Your task to perform on an android device: turn on location history Image 0: 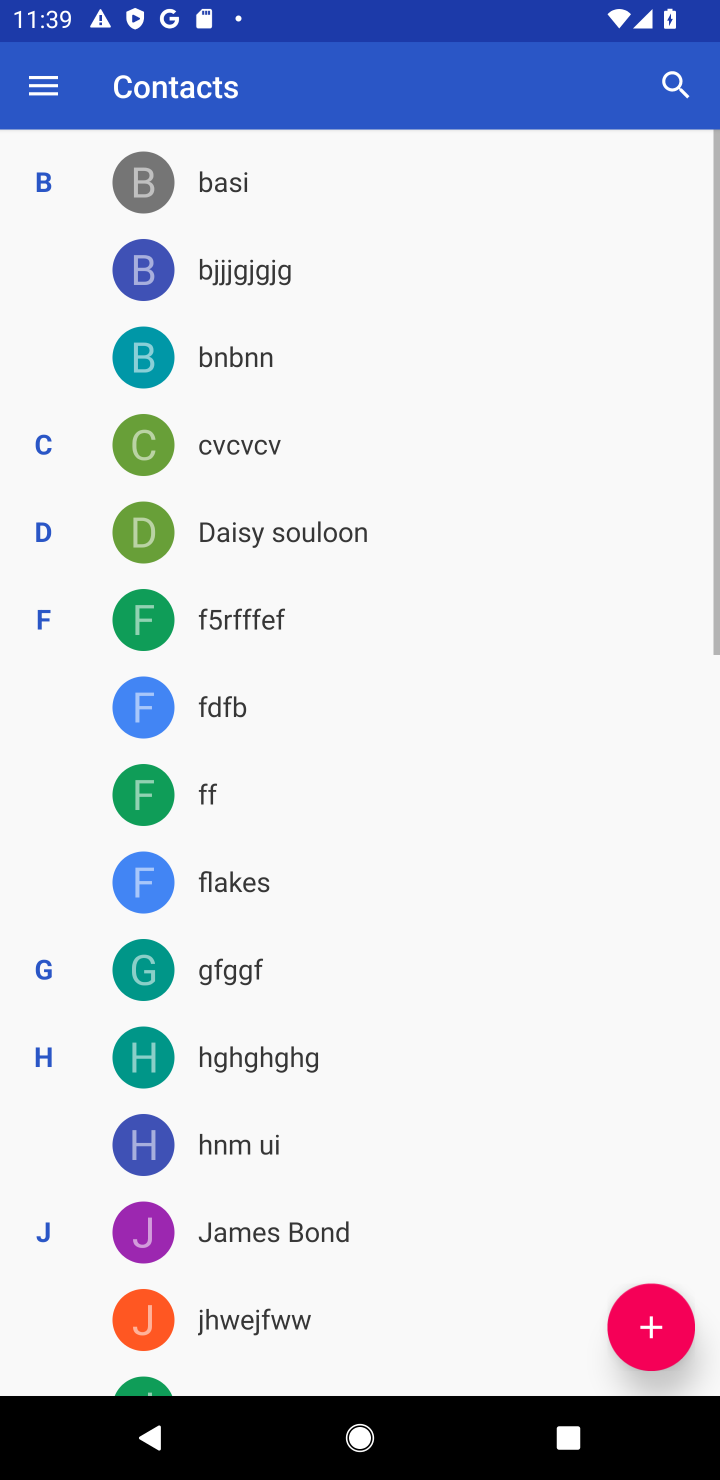
Step 0: click (441, 993)
Your task to perform on an android device: turn on location history Image 1: 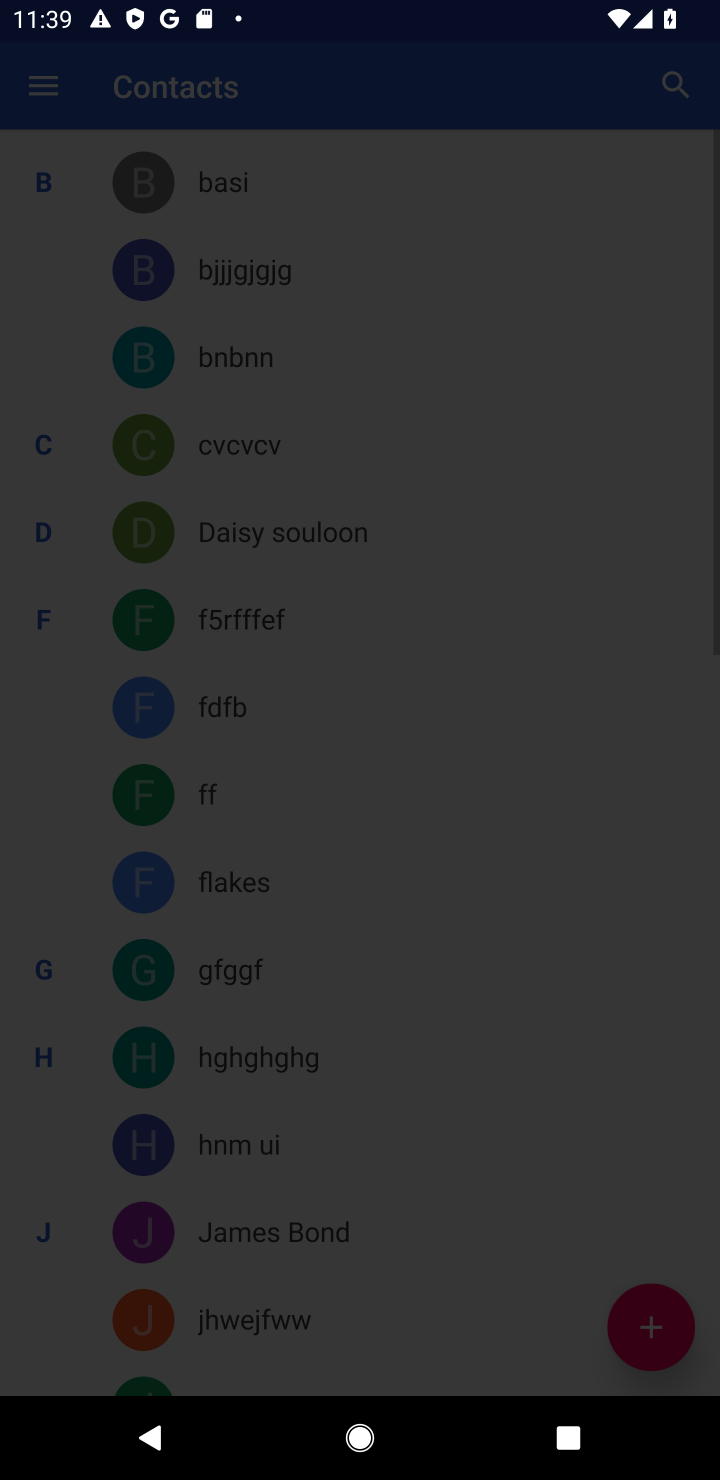
Step 1: press home button
Your task to perform on an android device: turn on location history Image 2: 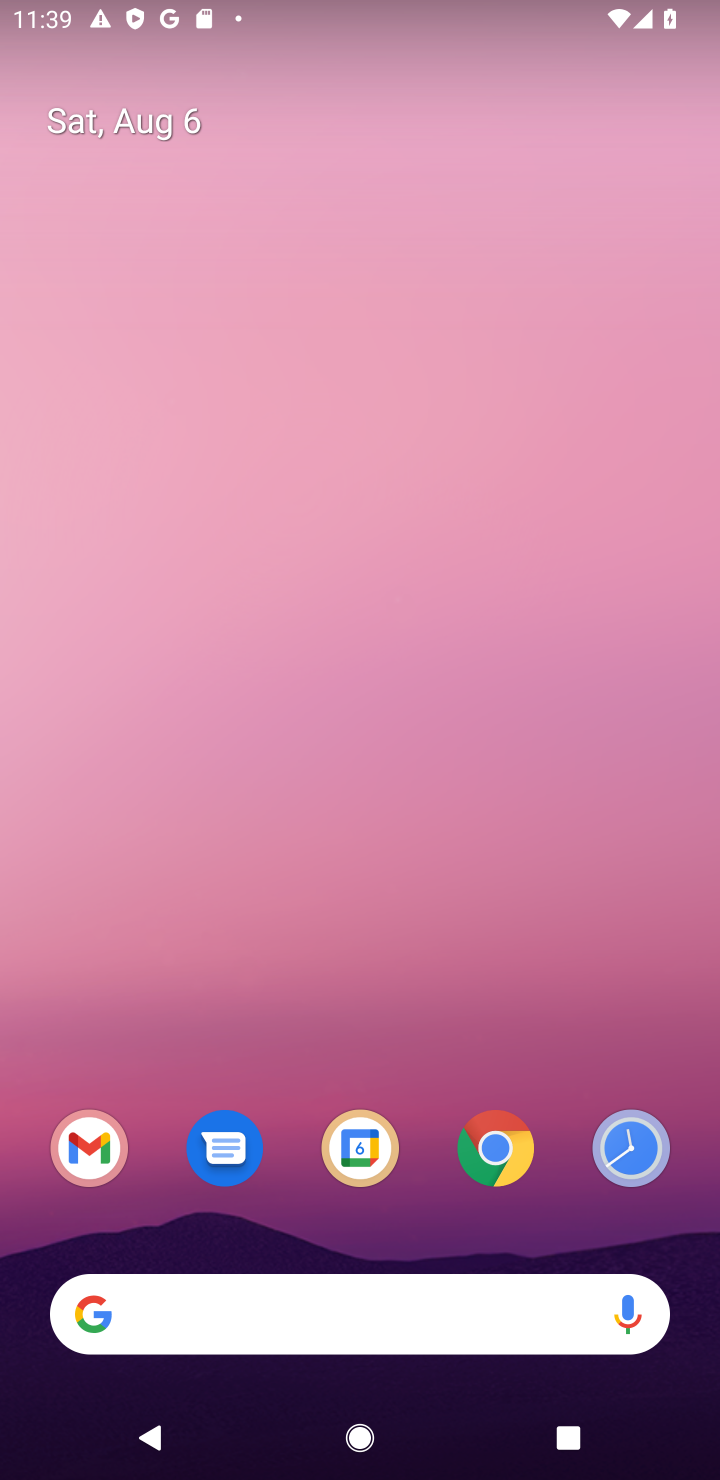
Step 2: drag from (323, 561) to (326, 158)
Your task to perform on an android device: turn on location history Image 3: 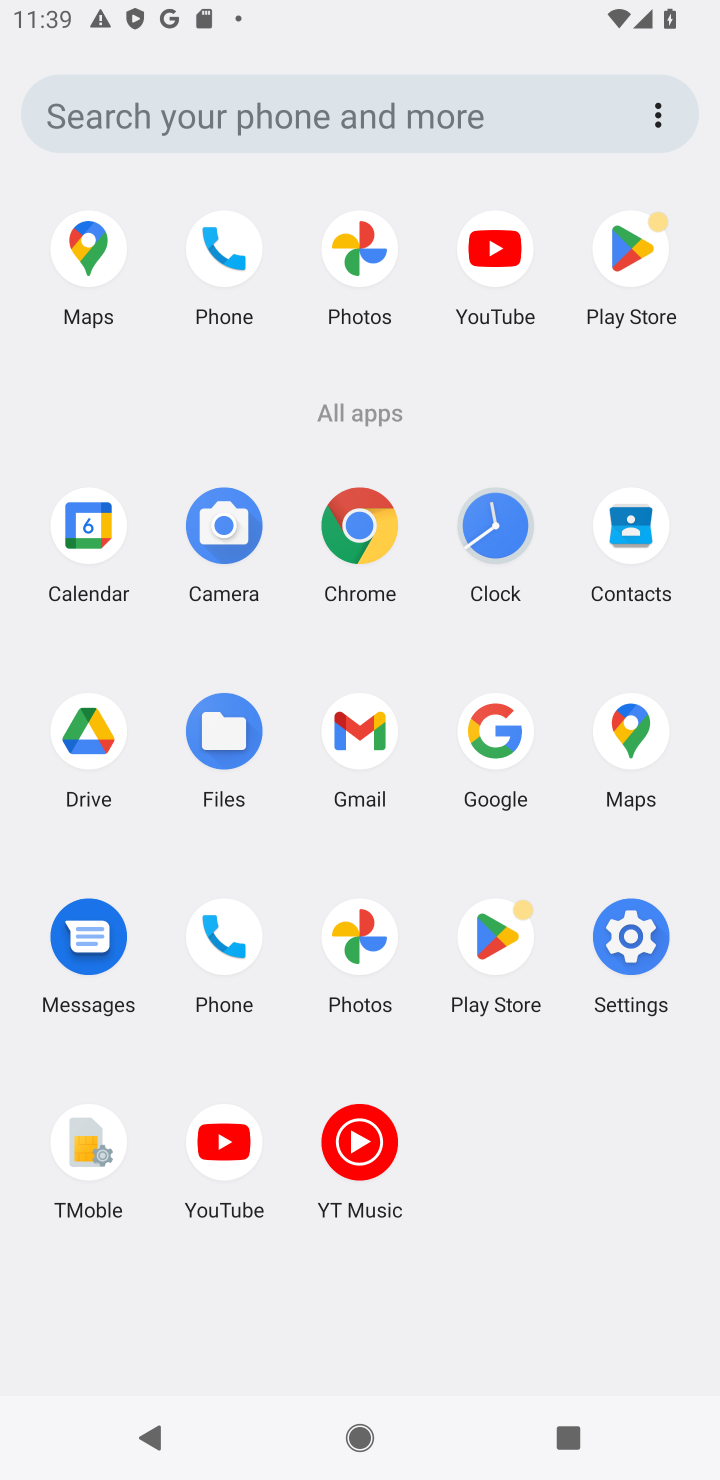
Step 3: click (632, 933)
Your task to perform on an android device: turn on location history Image 4: 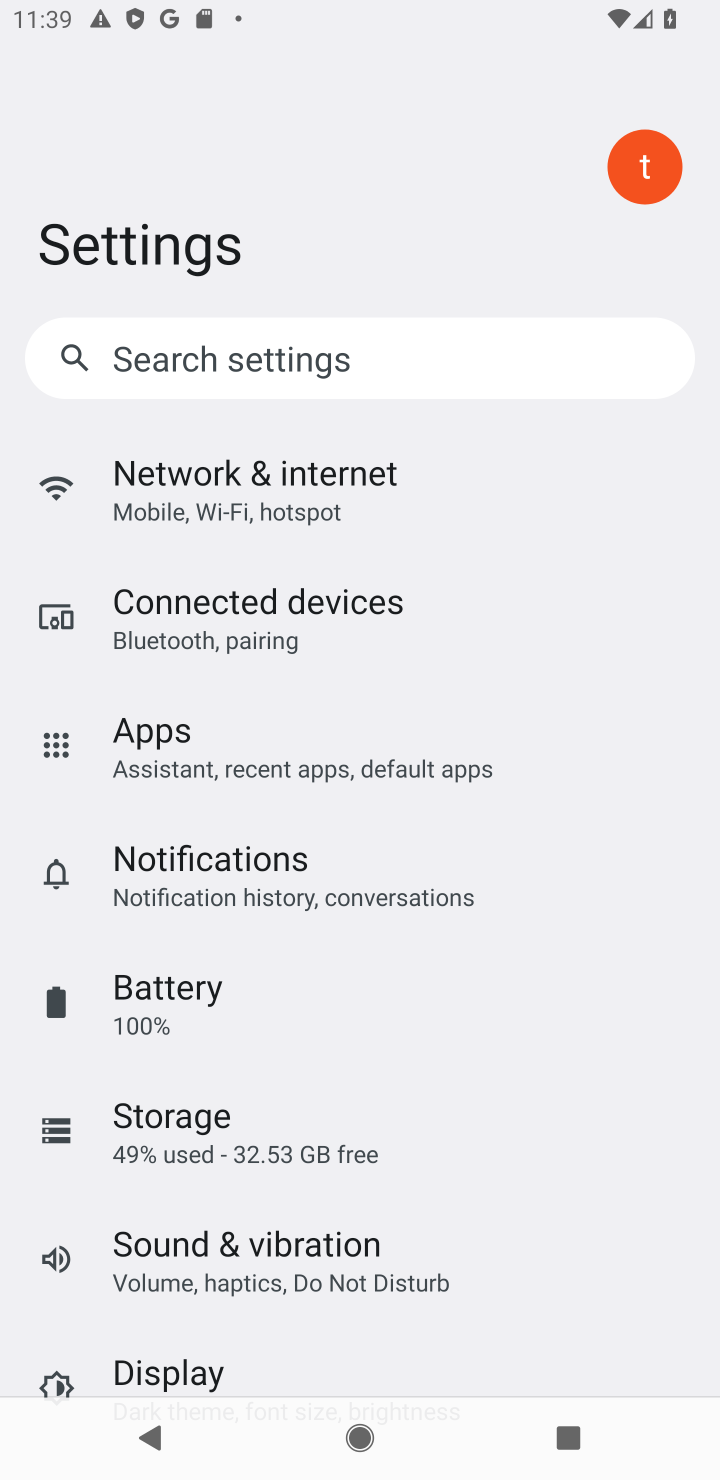
Step 4: drag from (428, 1293) to (433, 394)
Your task to perform on an android device: turn on location history Image 5: 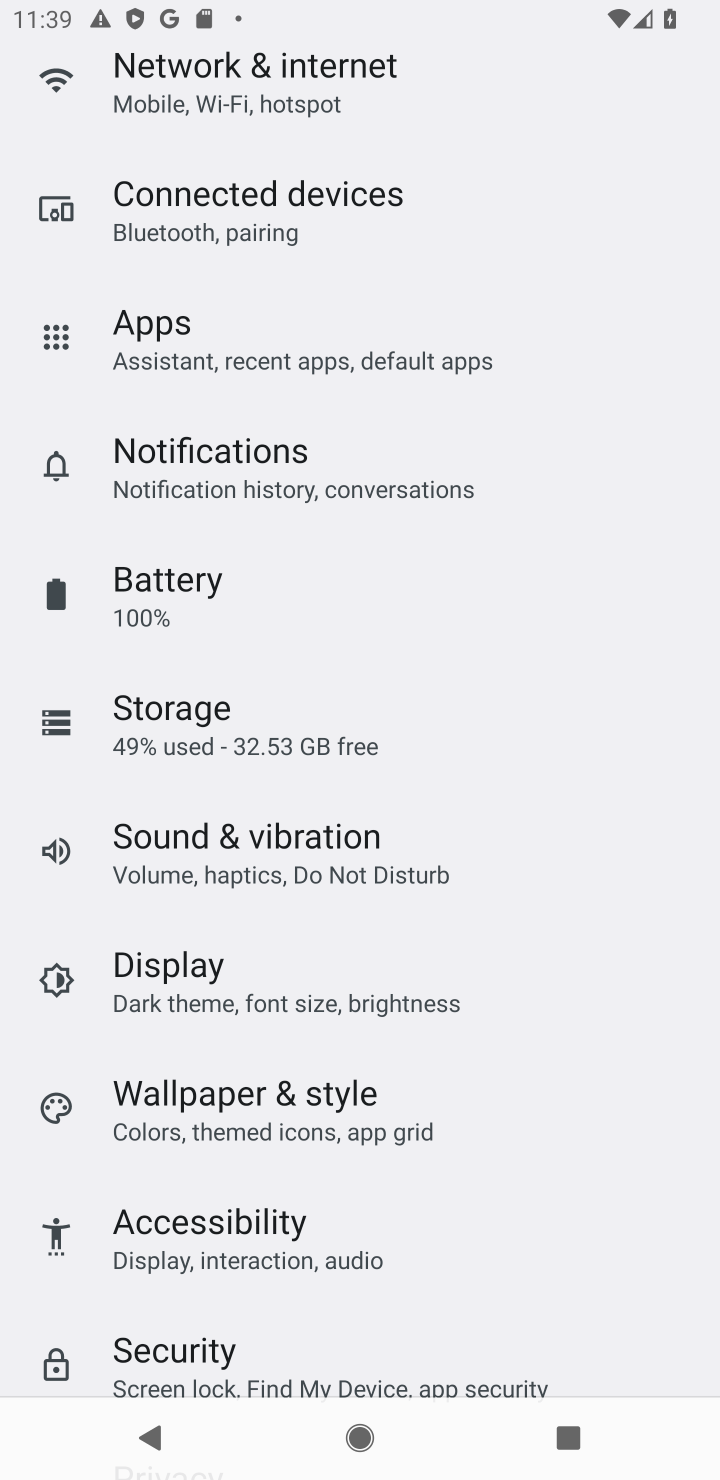
Step 5: drag from (454, 1226) to (354, 584)
Your task to perform on an android device: turn on location history Image 6: 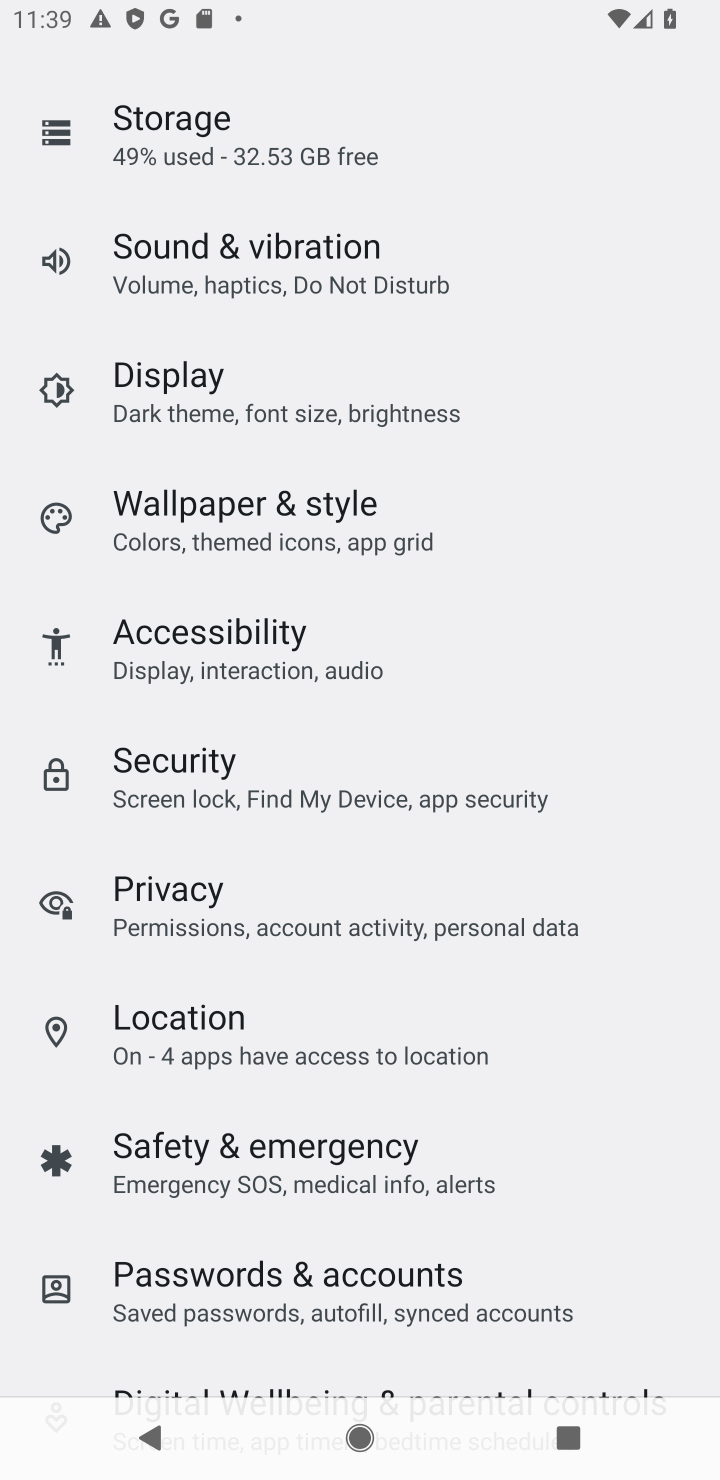
Step 6: click (188, 1021)
Your task to perform on an android device: turn on location history Image 7: 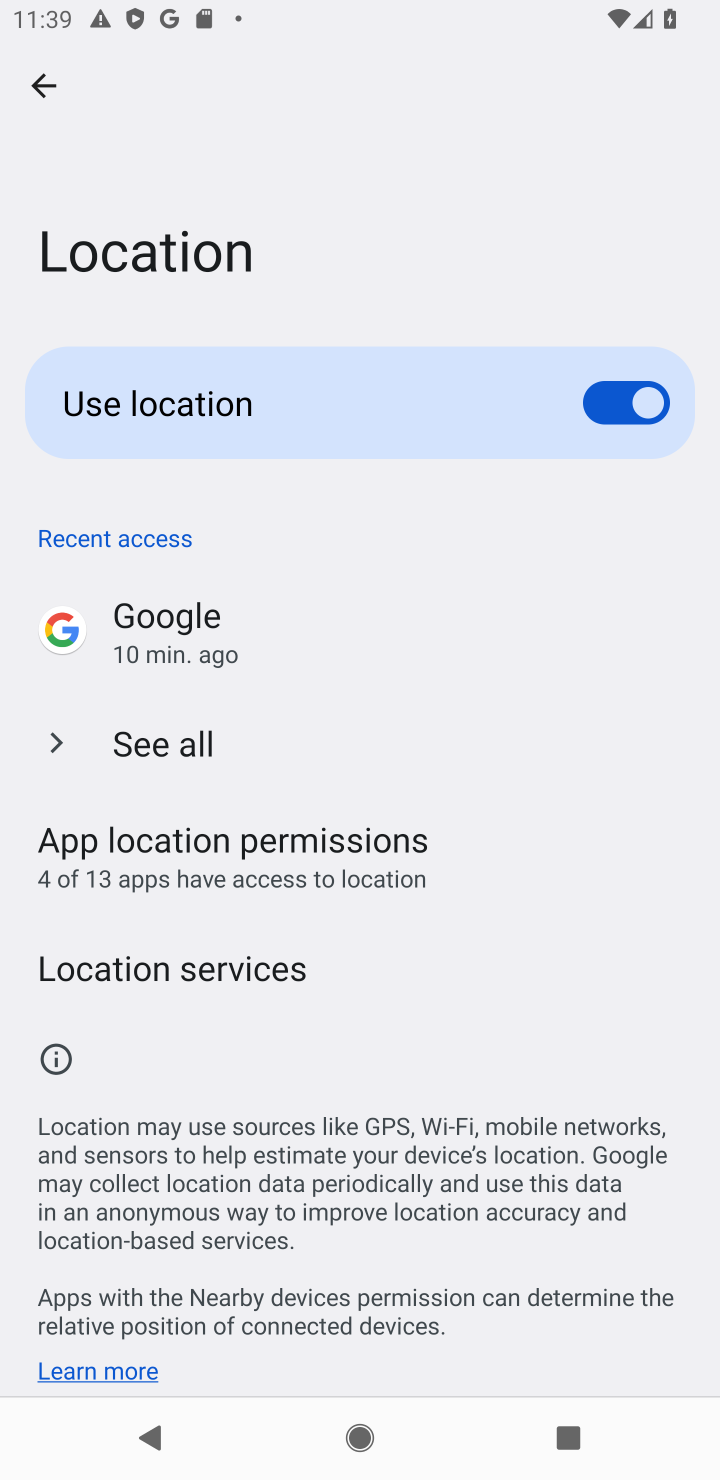
Step 7: click (209, 964)
Your task to perform on an android device: turn on location history Image 8: 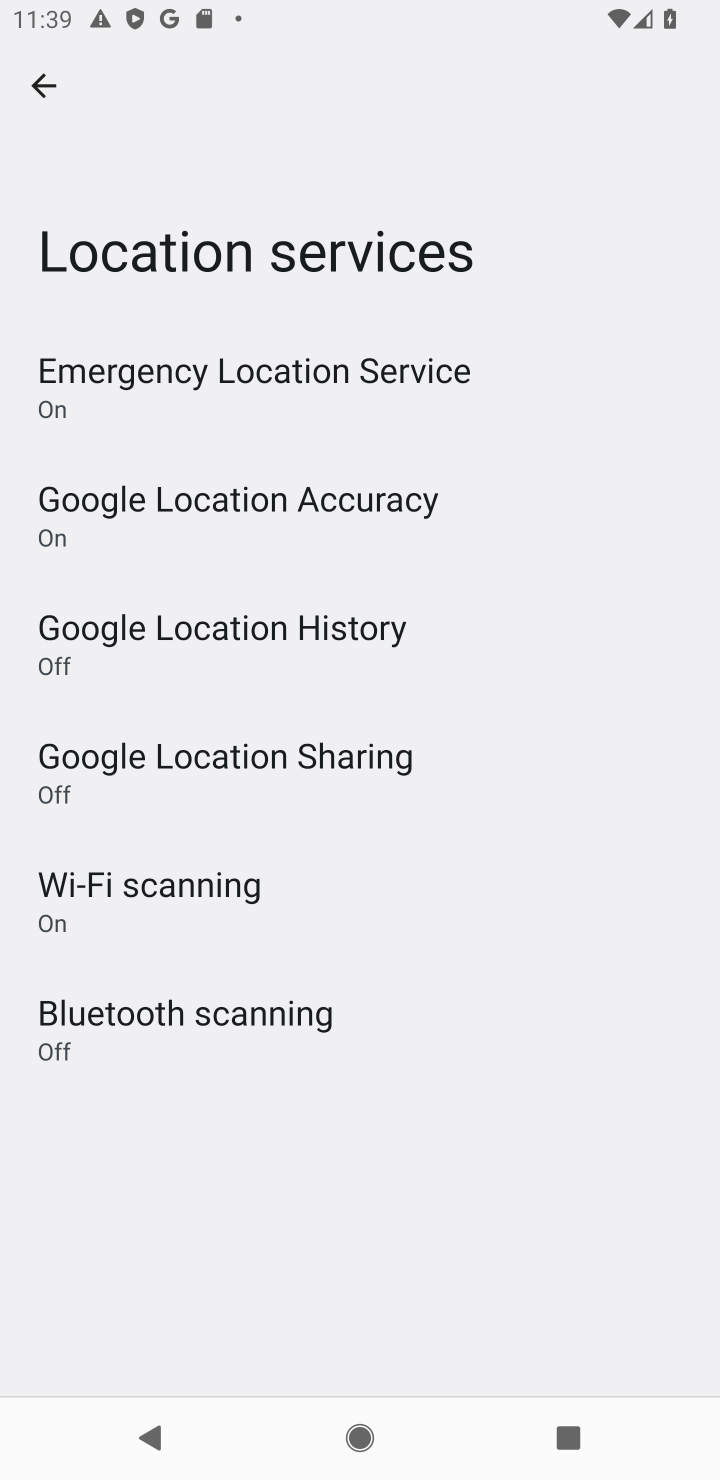
Step 8: click (180, 633)
Your task to perform on an android device: turn on location history Image 9: 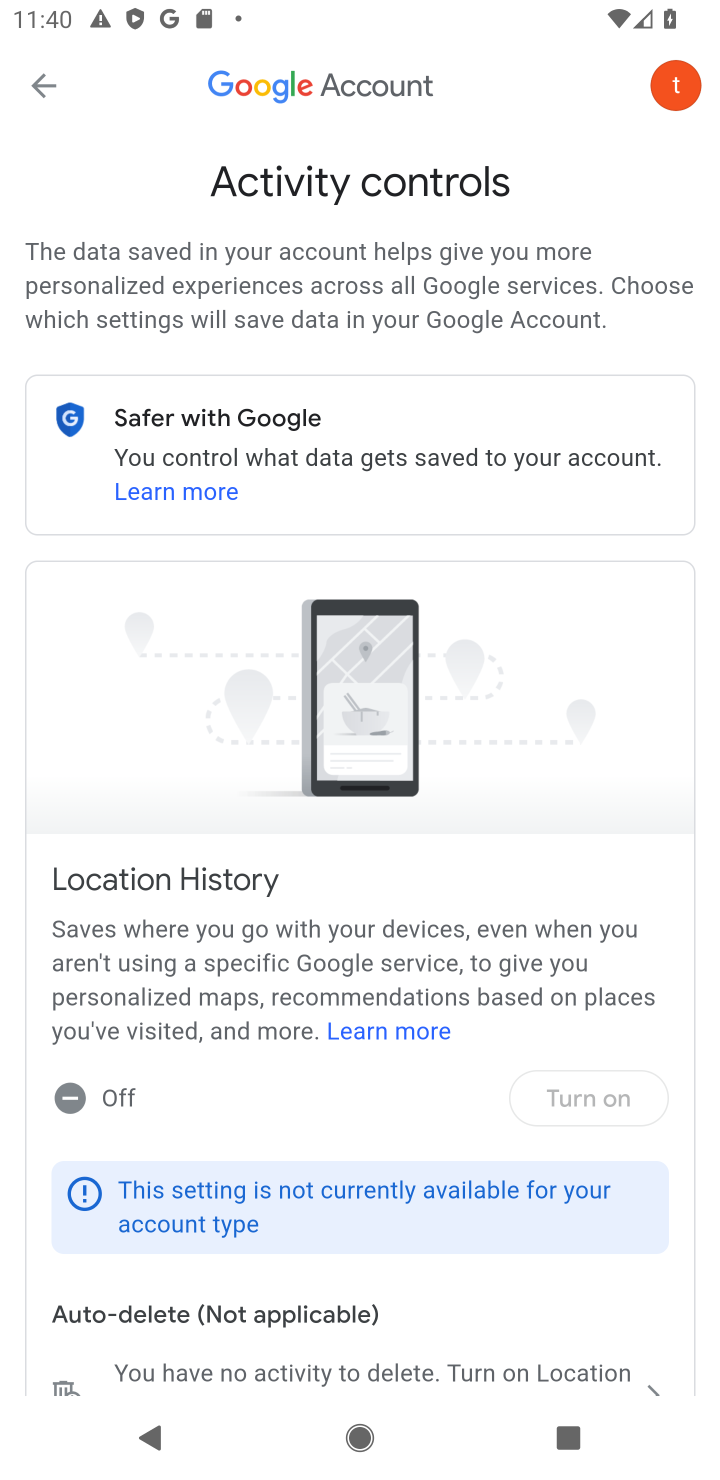
Step 9: click (605, 1096)
Your task to perform on an android device: turn on location history Image 10: 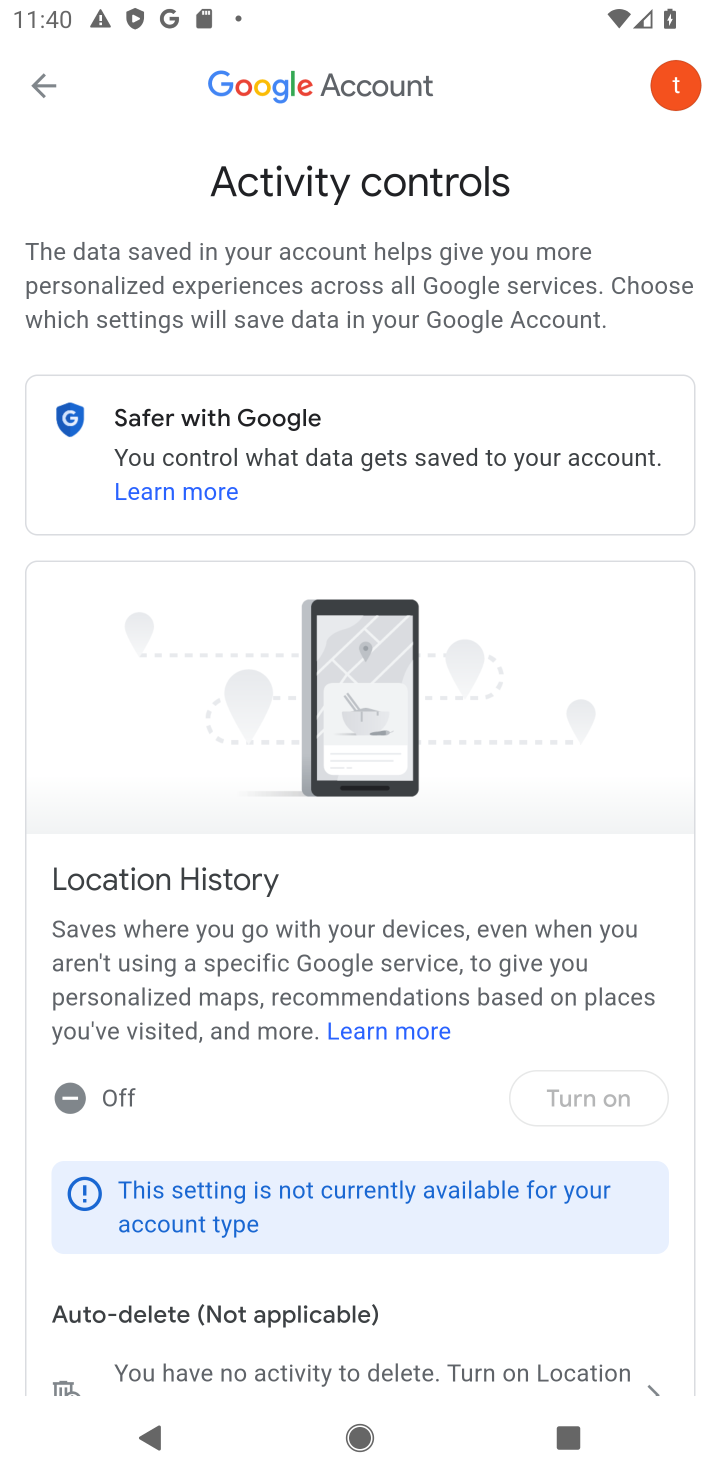
Step 10: task complete